Your task to perform on an android device: Open the web browser Image 0: 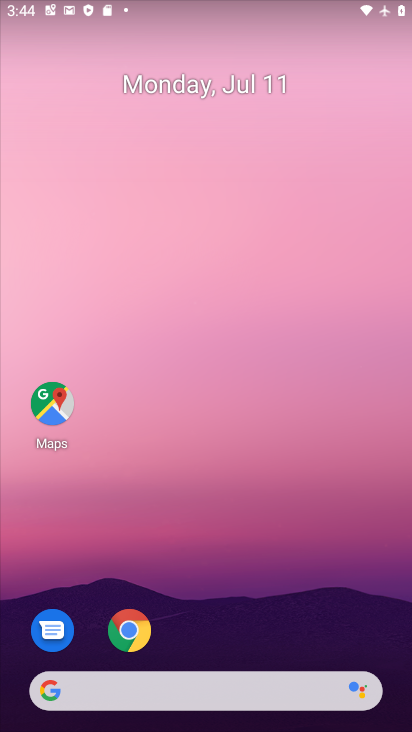
Step 0: drag from (269, 614) to (256, 493)
Your task to perform on an android device: Open the web browser Image 1: 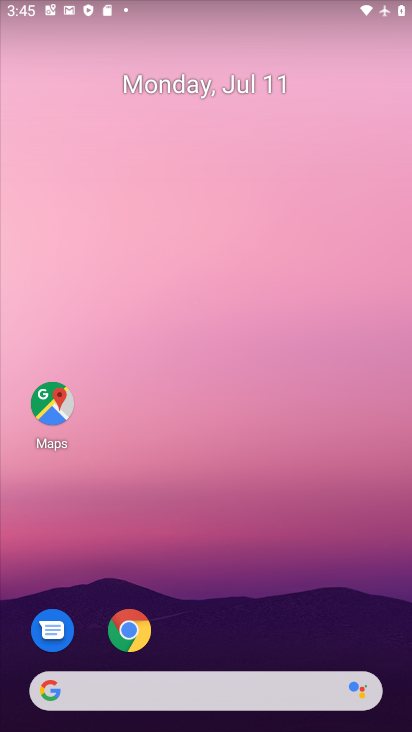
Step 1: drag from (231, 641) to (165, 127)
Your task to perform on an android device: Open the web browser Image 2: 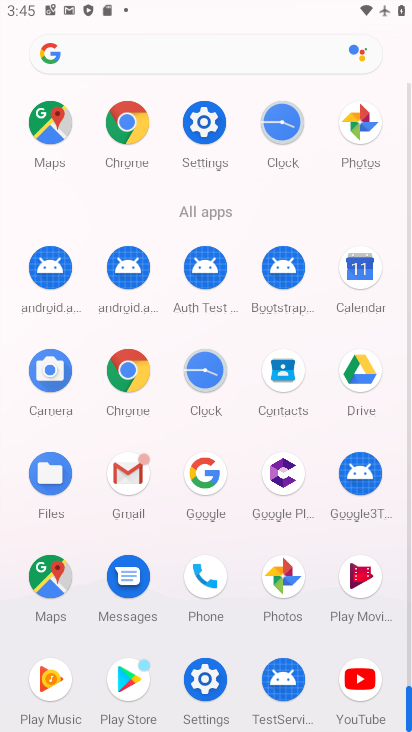
Step 2: click (126, 118)
Your task to perform on an android device: Open the web browser Image 3: 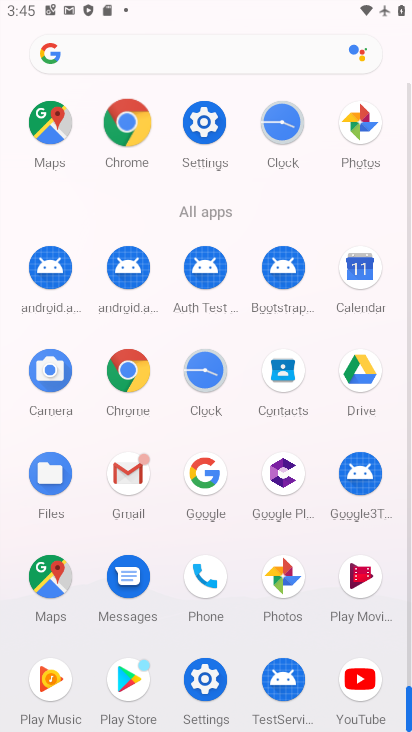
Step 3: click (128, 122)
Your task to perform on an android device: Open the web browser Image 4: 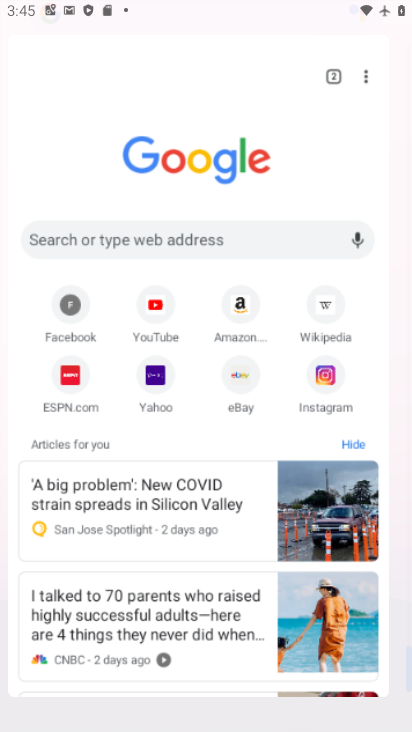
Step 4: click (128, 122)
Your task to perform on an android device: Open the web browser Image 5: 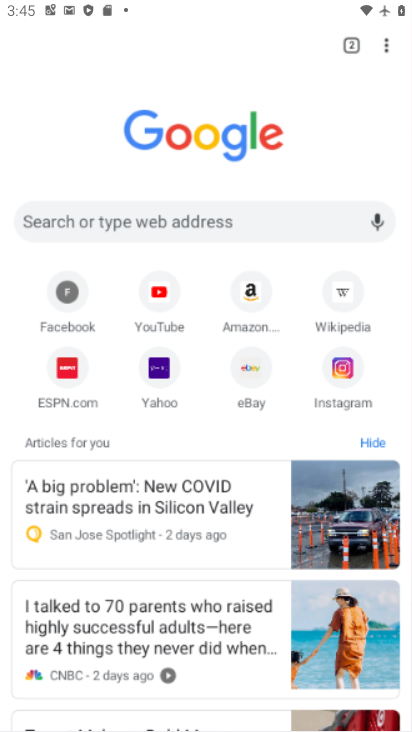
Step 5: click (128, 122)
Your task to perform on an android device: Open the web browser Image 6: 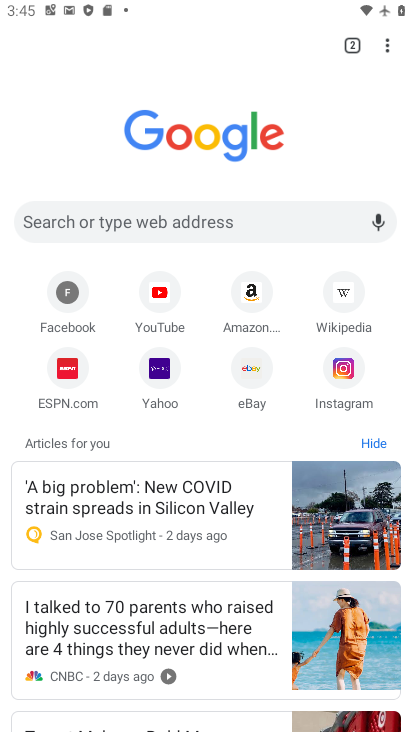
Step 6: click (391, 48)
Your task to perform on an android device: Open the web browser Image 7: 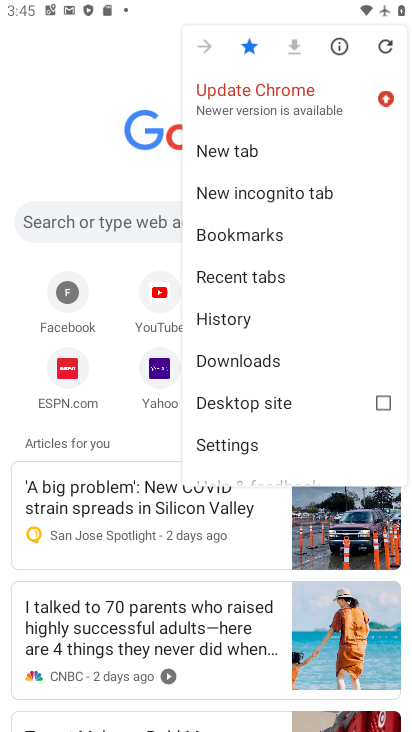
Step 7: click (223, 149)
Your task to perform on an android device: Open the web browser Image 8: 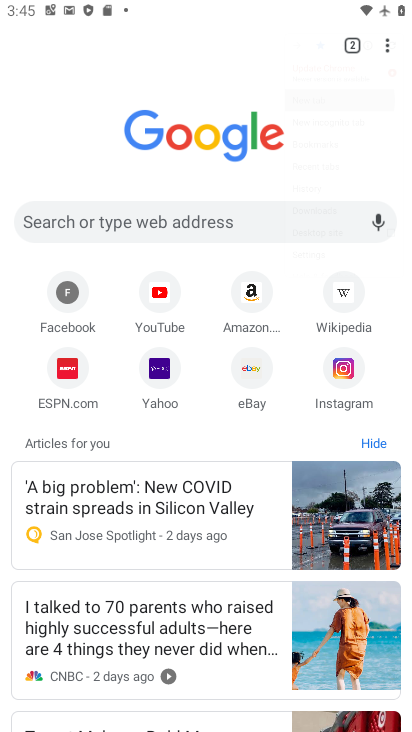
Step 8: click (223, 149)
Your task to perform on an android device: Open the web browser Image 9: 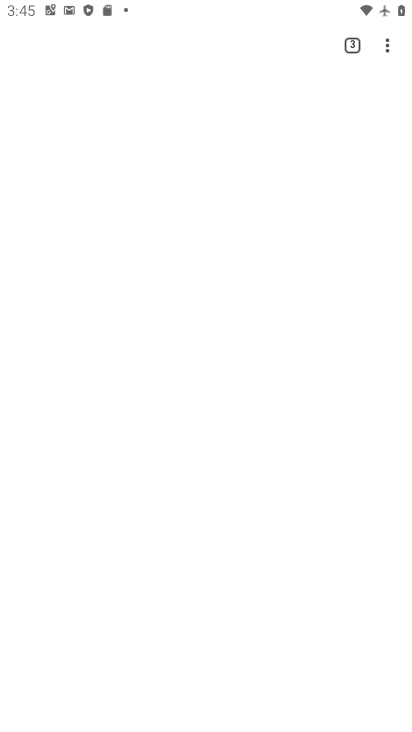
Step 9: click (223, 149)
Your task to perform on an android device: Open the web browser Image 10: 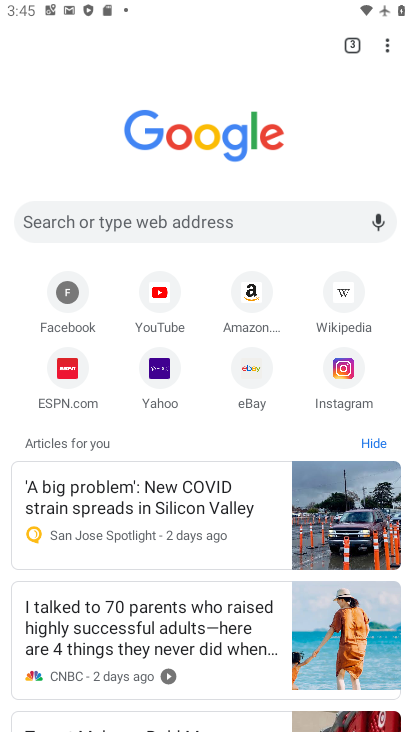
Step 10: click (83, 218)
Your task to perform on an android device: Open the web browser Image 11: 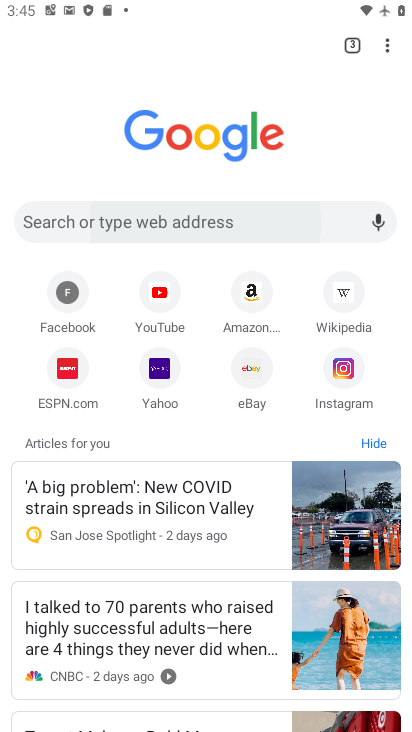
Step 11: click (83, 218)
Your task to perform on an android device: Open the web browser Image 12: 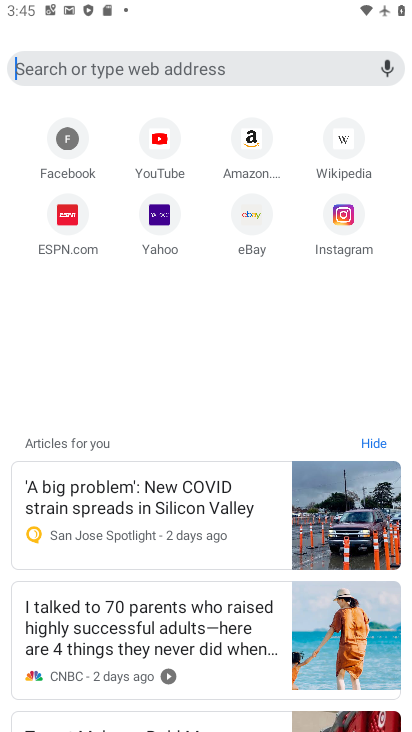
Step 12: click (84, 216)
Your task to perform on an android device: Open the web browser Image 13: 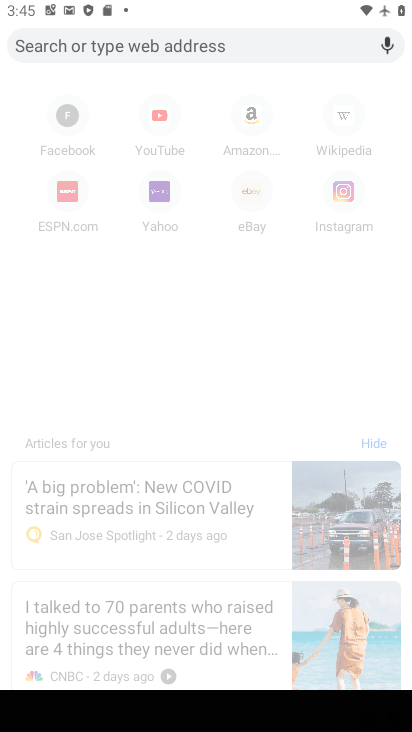
Step 13: click (84, 216)
Your task to perform on an android device: Open the web browser Image 14: 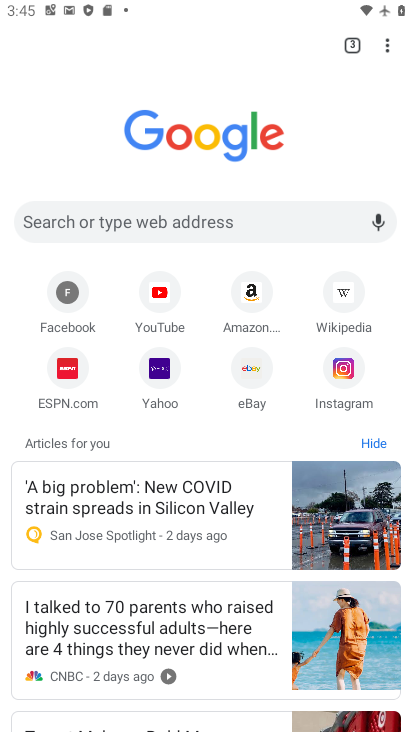
Step 14: task complete